Your task to perform on an android device: Turn on the flashlight Image 0: 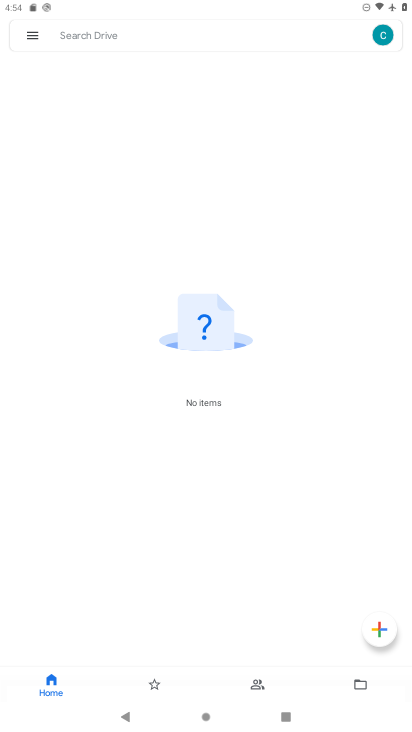
Step 0: press home button
Your task to perform on an android device: Turn on the flashlight Image 1: 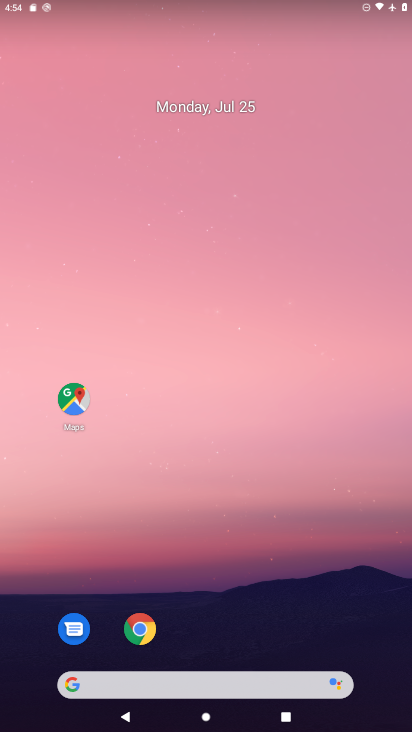
Step 1: task complete